Your task to perform on an android device: Open Wikipedia Image 0: 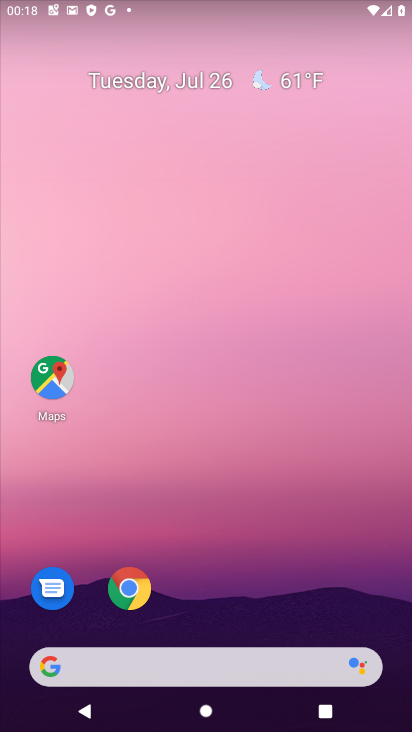
Step 0: drag from (215, 614) to (224, 0)
Your task to perform on an android device: Open Wikipedia Image 1: 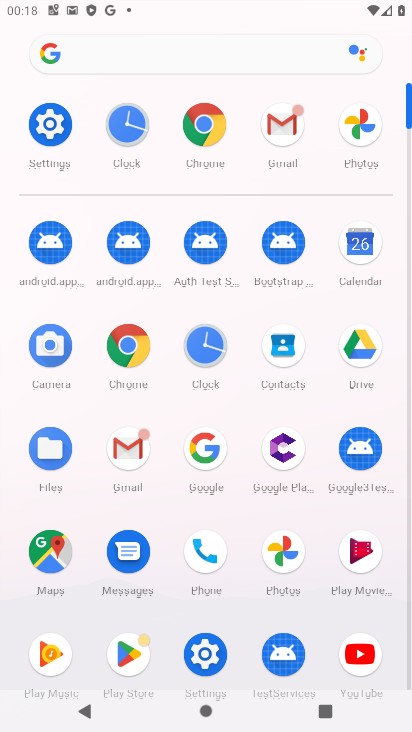
Step 1: click (128, 441)
Your task to perform on an android device: Open Wikipedia Image 2: 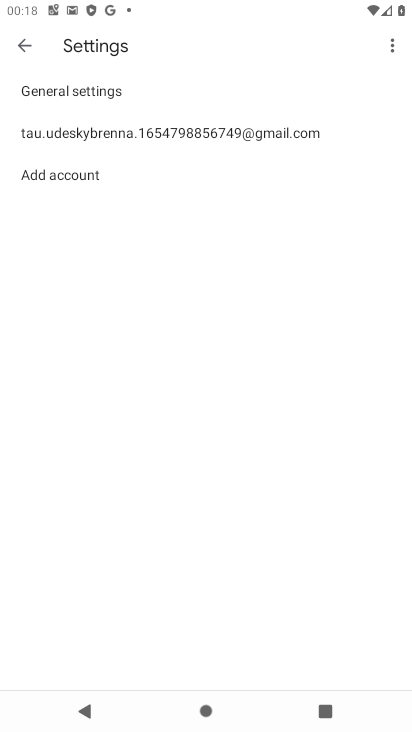
Step 2: press home button
Your task to perform on an android device: Open Wikipedia Image 3: 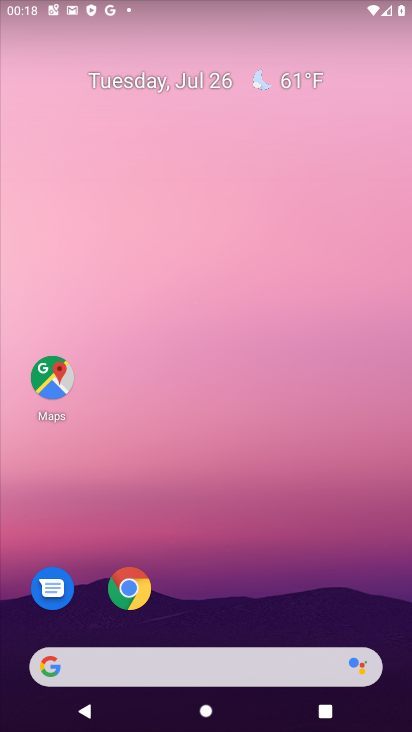
Step 3: click (125, 581)
Your task to perform on an android device: Open Wikipedia Image 4: 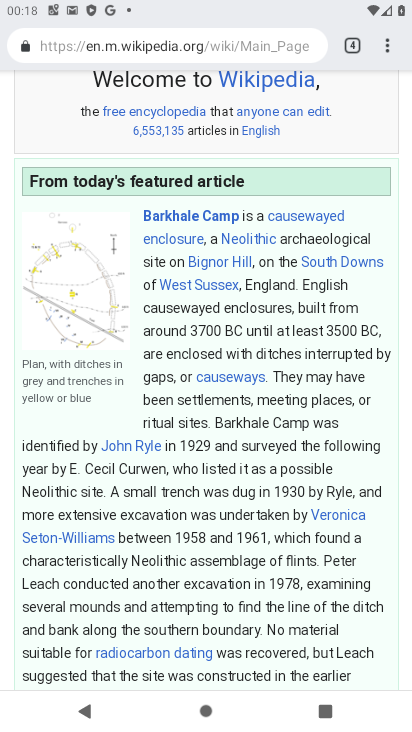
Step 4: task complete